Your task to perform on an android device: Is it going to rain today? Image 0: 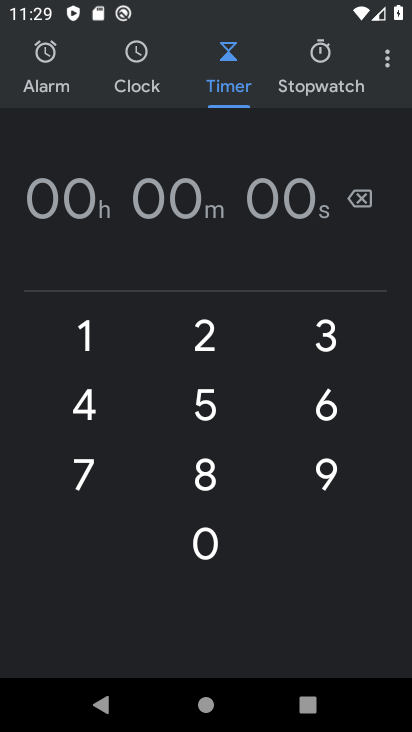
Step 0: press back button
Your task to perform on an android device: Is it going to rain today? Image 1: 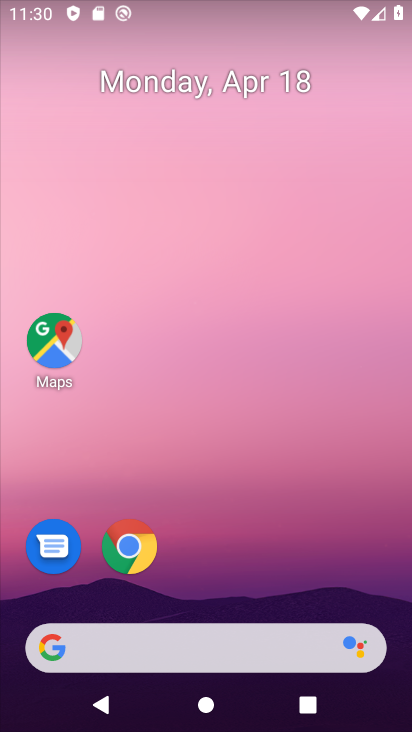
Step 1: click (278, 530)
Your task to perform on an android device: Is it going to rain today? Image 2: 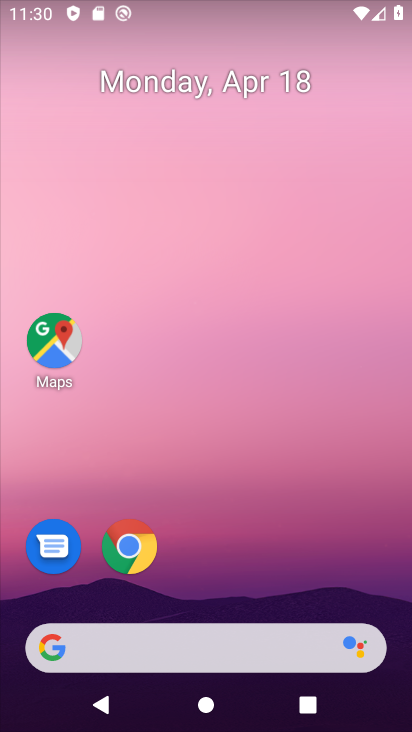
Step 2: click (157, 649)
Your task to perform on an android device: Is it going to rain today? Image 3: 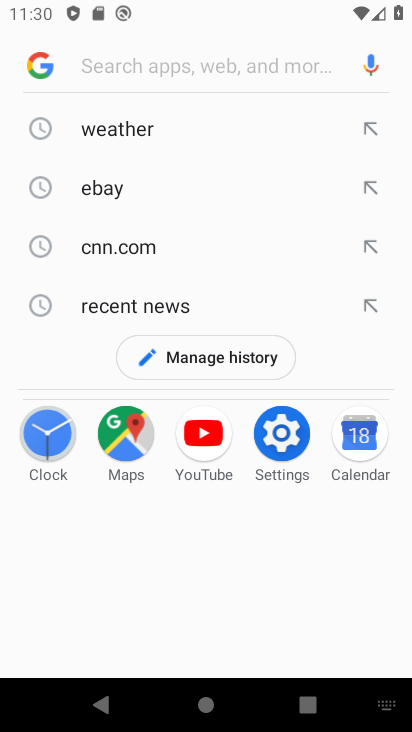
Step 3: type "weather"
Your task to perform on an android device: Is it going to rain today? Image 4: 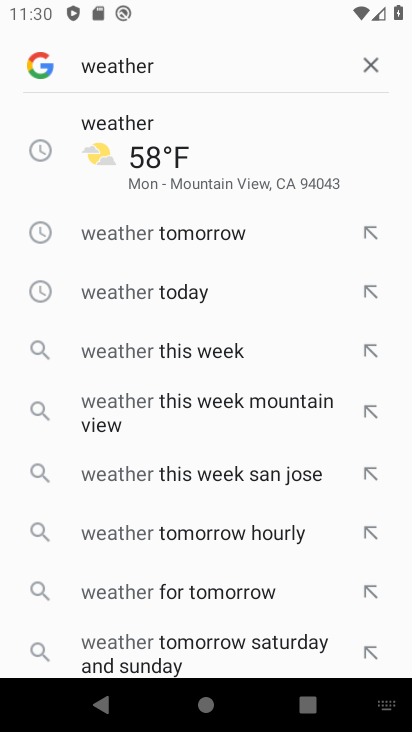
Step 4: click (162, 152)
Your task to perform on an android device: Is it going to rain today? Image 5: 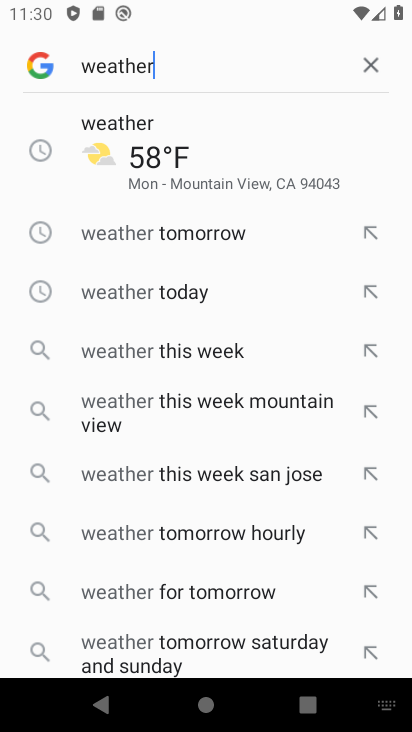
Step 5: click (162, 152)
Your task to perform on an android device: Is it going to rain today? Image 6: 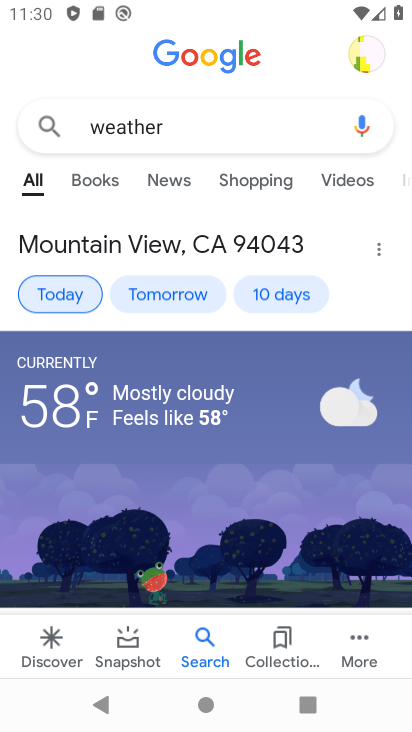
Step 6: task complete